Your task to perform on an android device: What is the recent news? Image 0: 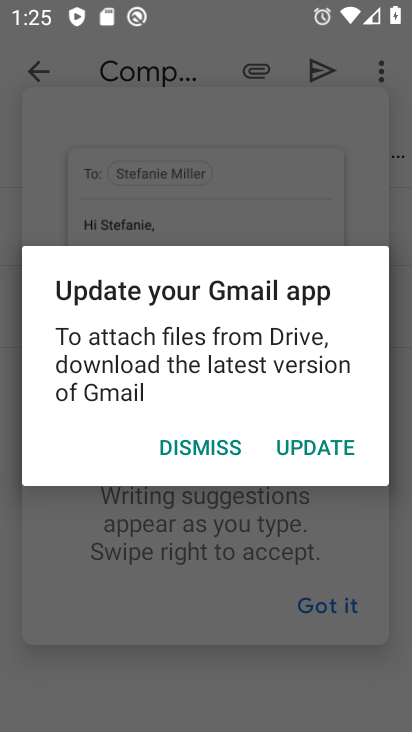
Step 0: press home button
Your task to perform on an android device: What is the recent news? Image 1: 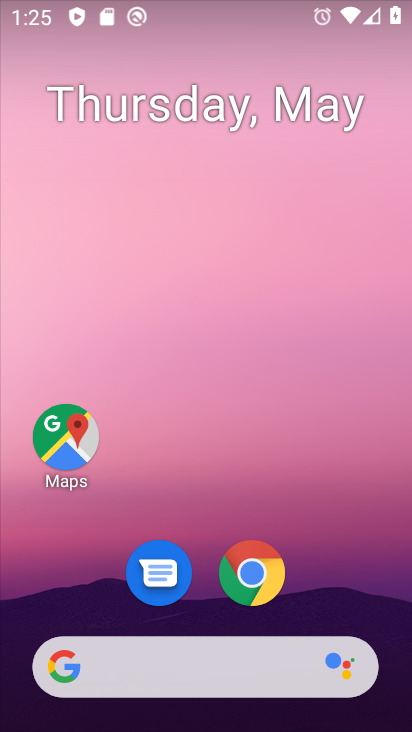
Step 1: task complete